Your task to perform on an android device: allow notifications from all sites in the chrome app Image 0: 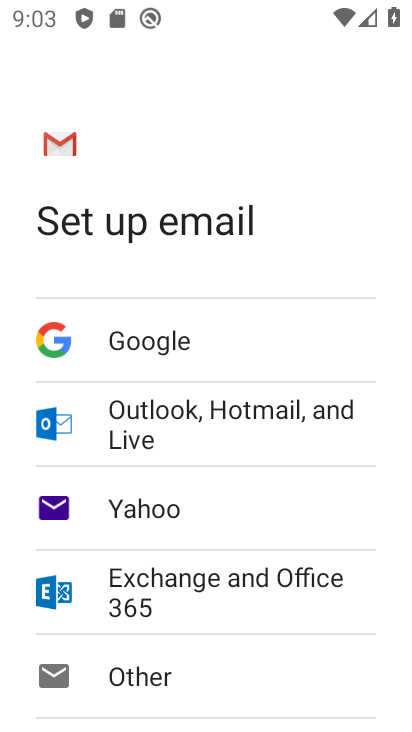
Step 0: drag from (369, 558) to (381, 396)
Your task to perform on an android device: allow notifications from all sites in the chrome app Image 1: 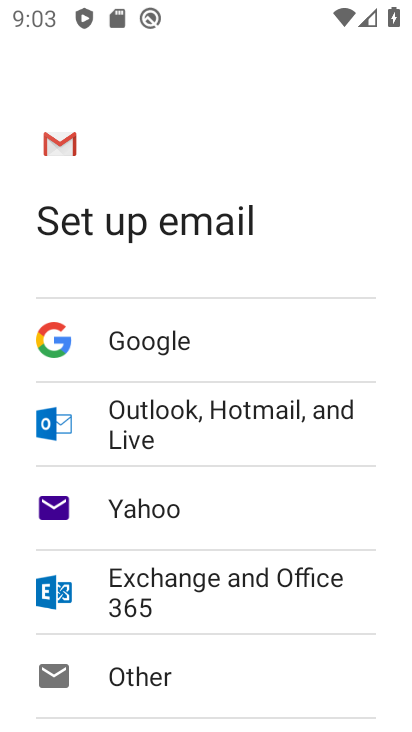
Step 1: press home button
Your task to perform on an android device: allow notifications from all sites in the chrome app Image 2: 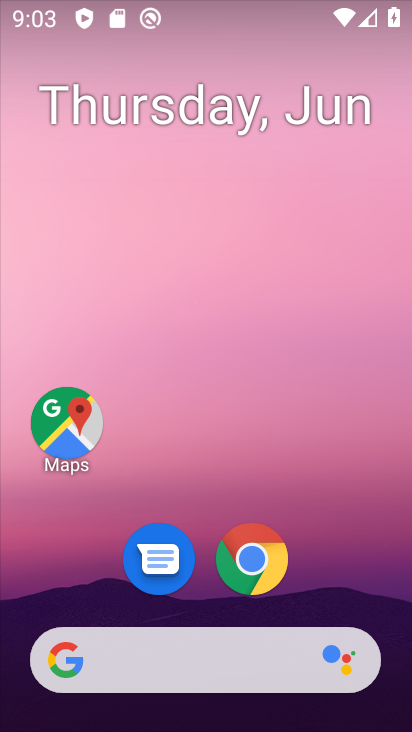
Step 2: click (237, 558)
Your task to perform on an android device: allow notifications from all sites in the chrome app Image 3: 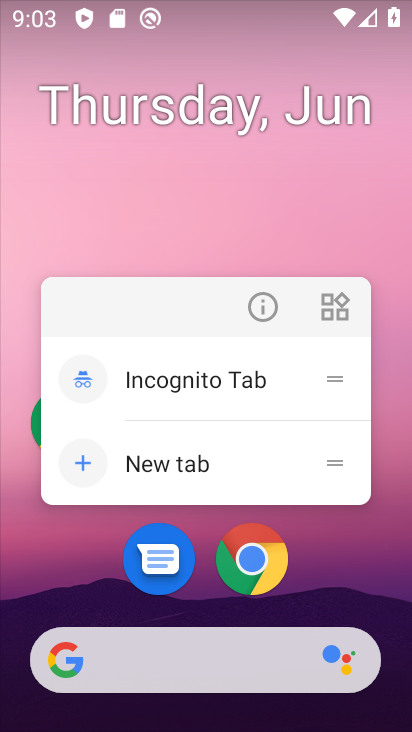
Step 3: click (271, 302)
Your task to perform on an android device: allow notifications from all sites in the chrome app Image 4: 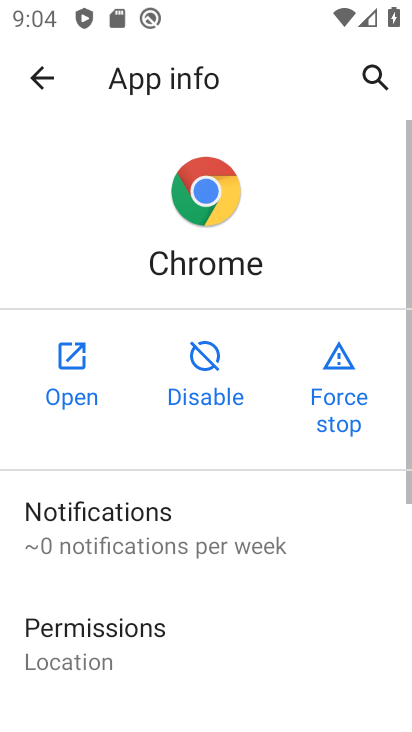
Step 4: drag from (231, 620) to (243, 256)
Your task to perform on an android device: allow notifications from all sites in the chrome app Image 5: 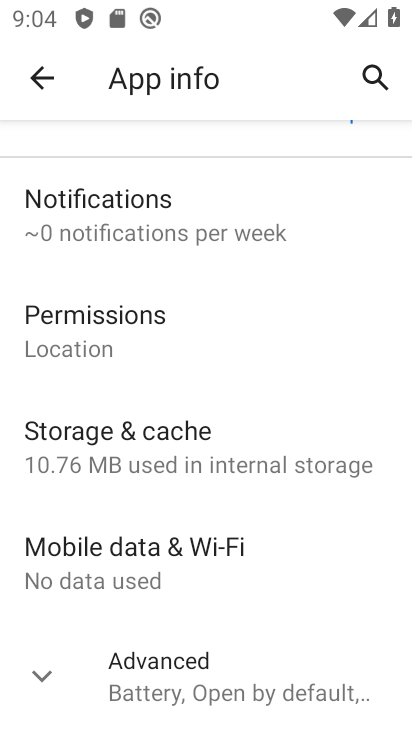
Step 5: click (195, 214)
Your task to perform on an android device: allow notifications from all sites in the chrome app Image 6: 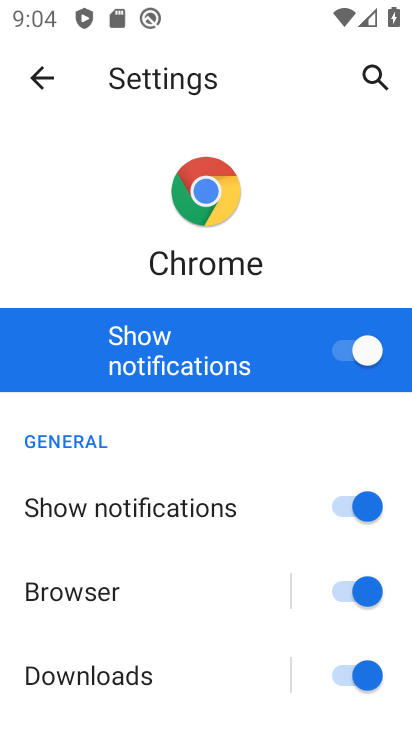
Step 6: task complete